Your task to perform on an android device: Searchfor good French restaurants Image 0: 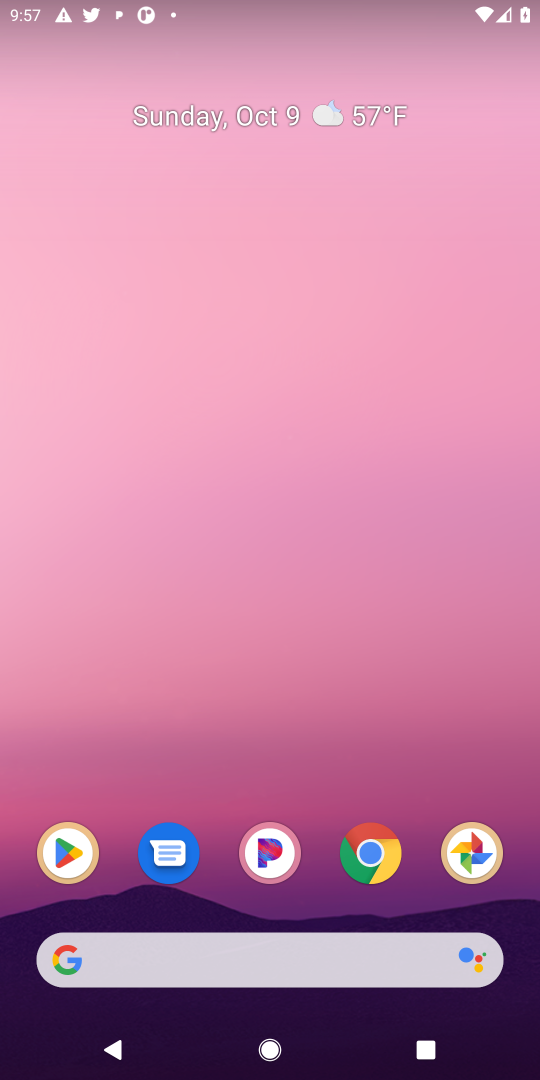
Step 0: click (374, 864)
Your task to perform on an android device: Searchfor good French restaurants Image 1: 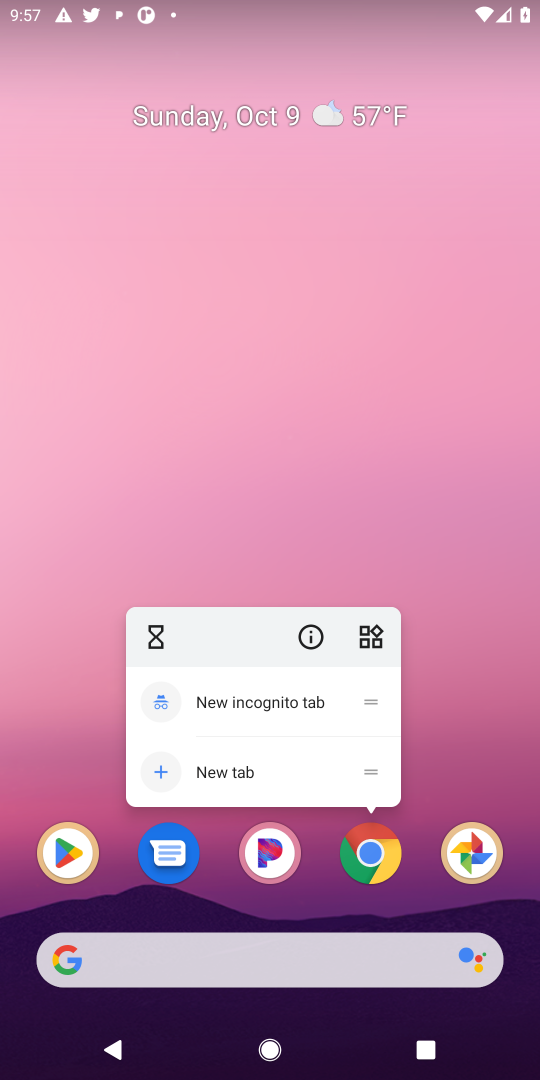
Step 1: click (361, 374)
Your task to perform on an android device: Searchfor good French restaurants Image 2: 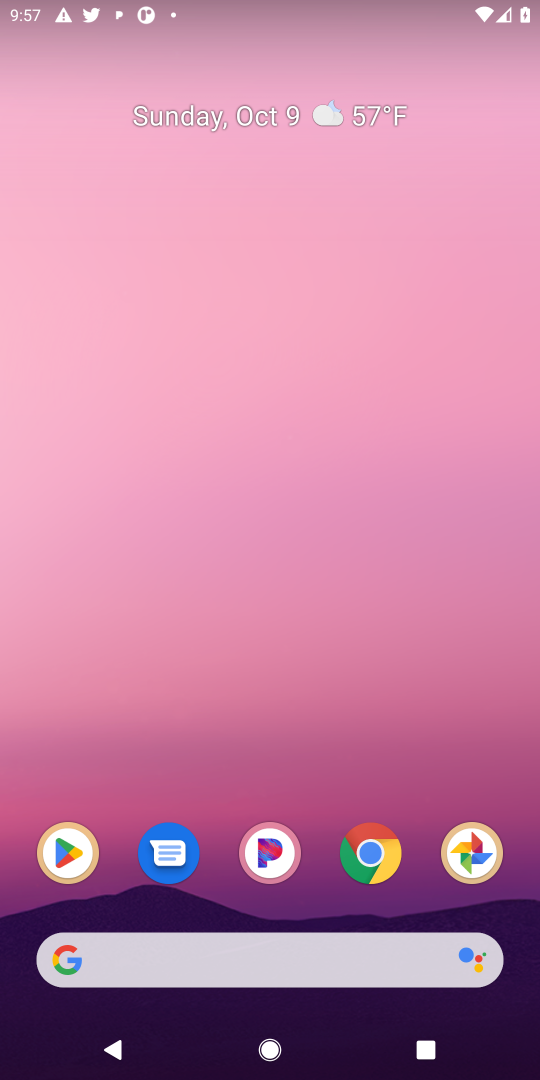
Step 2: click (138, 944)
Your task to perform on an android device: Searchfor good French restaurants Image 3: 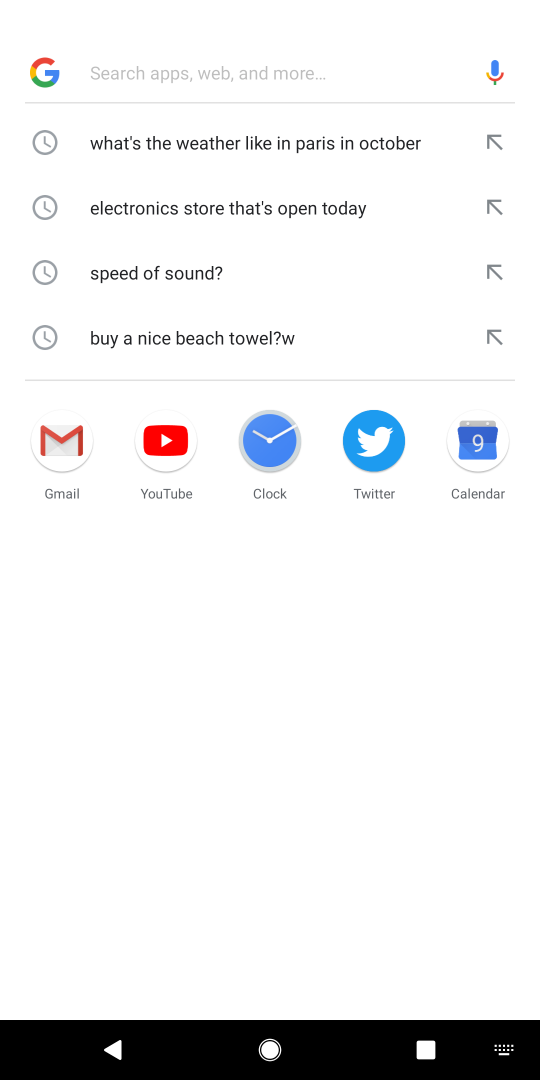
Step 3: type "good french restaurants"
Your task to perform on an android device: Searchfor good French restaurants Image 4: 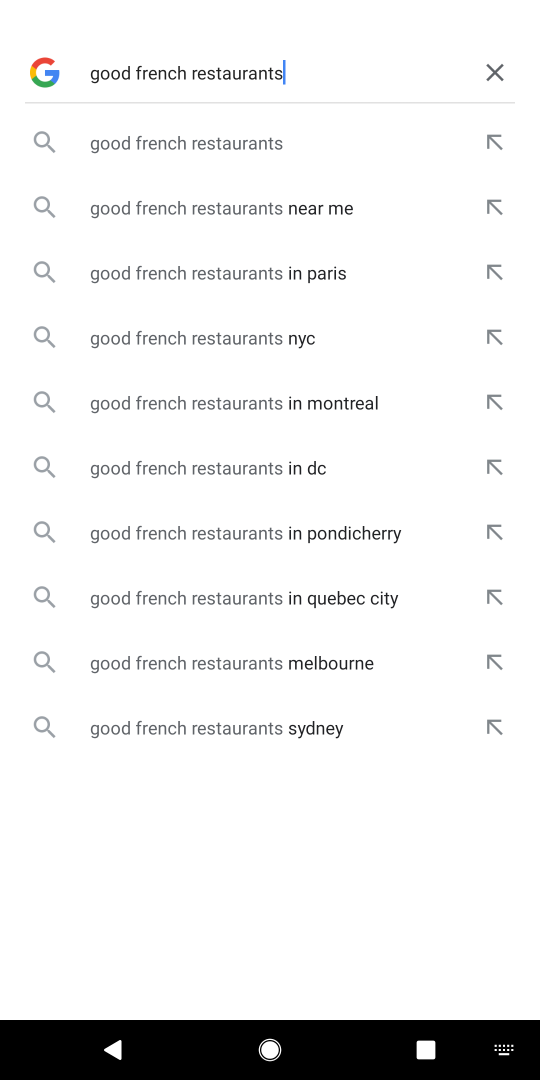
Step 4: press enter
Your task to perform on an android device: Searchfor good French restaurants Image 5: 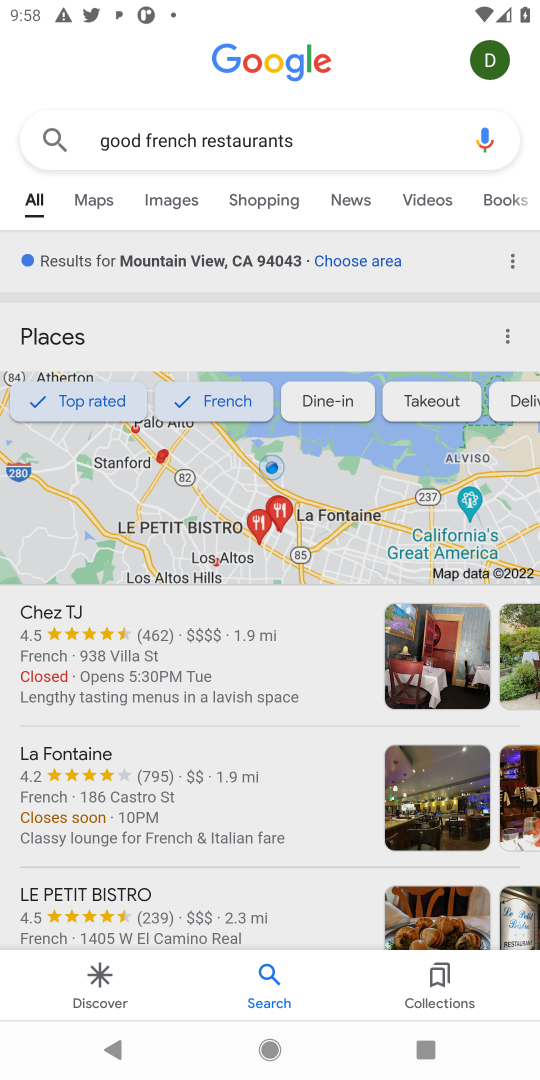
Step 5: click (48, 603)
Your task to perform on an android device: Searchfor good French restaurants Image 6: 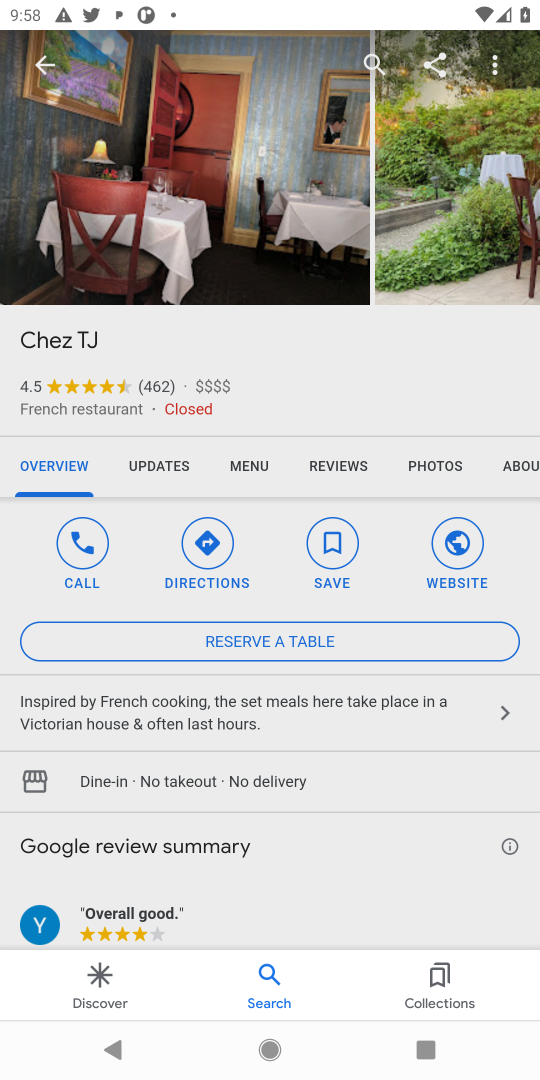
Step 6: drag from (286, 805) to (256, 308)
Your task to perform on an android device: Searchfor good French restaurants Image 7: 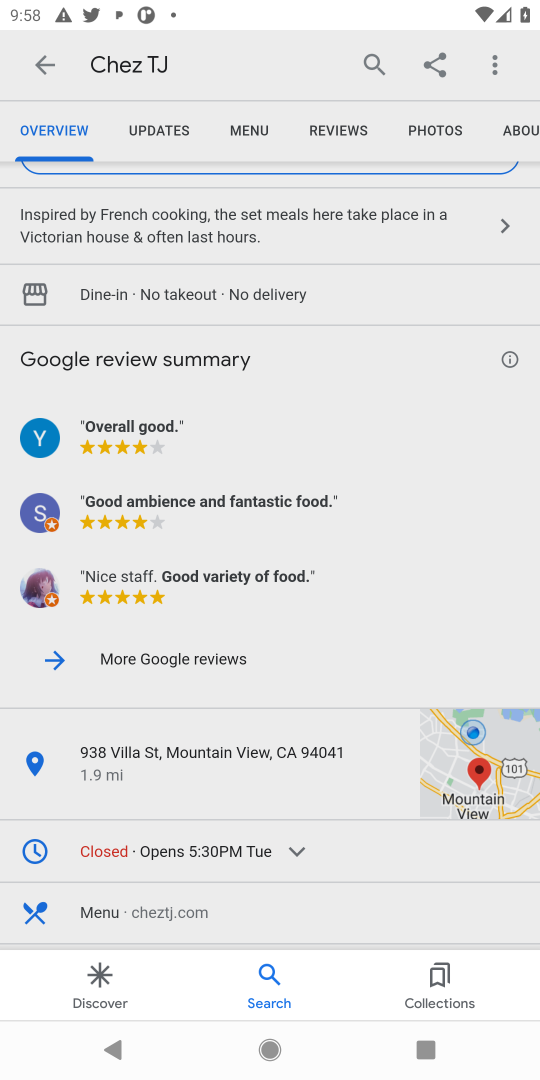
Step 7: drag from (282, 736) to (244, 332)
Your task to perform on an android device: Searchfor good French restaurants Image 8: 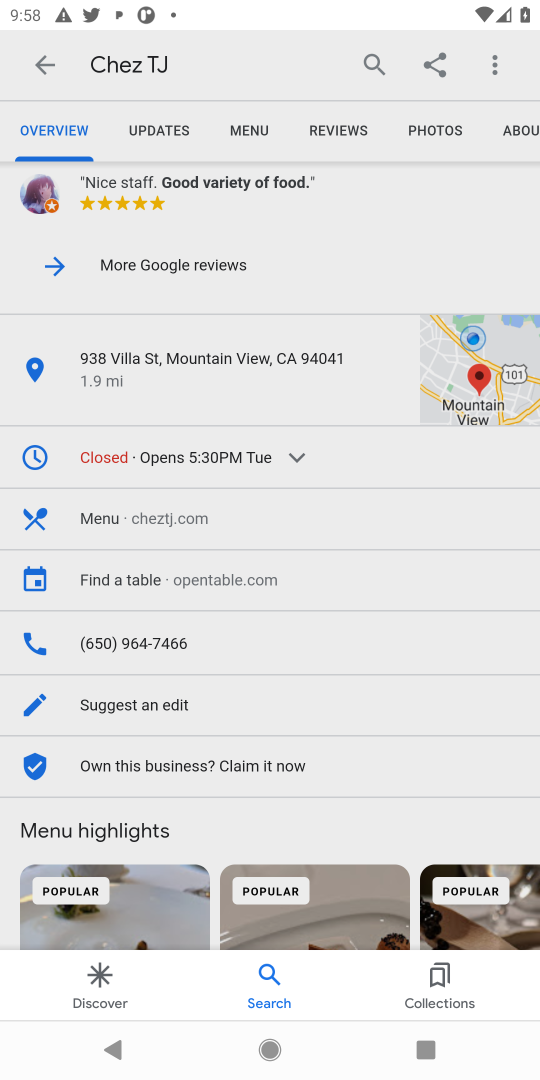
Step 8: drag from (220, 734) to (257, 271)
Your task to perform on an android device: Searchfor good French restaurants Image 9: 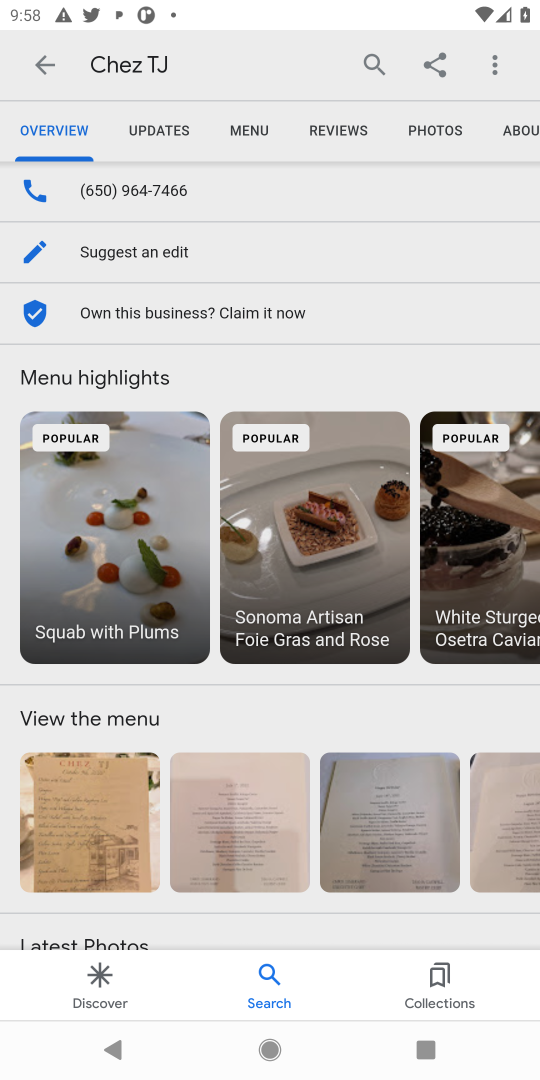
Step 9: drag from (306, 592) to (266, 259)
Your task to perform on an android device: Searchfor good French restaurants Image 10: 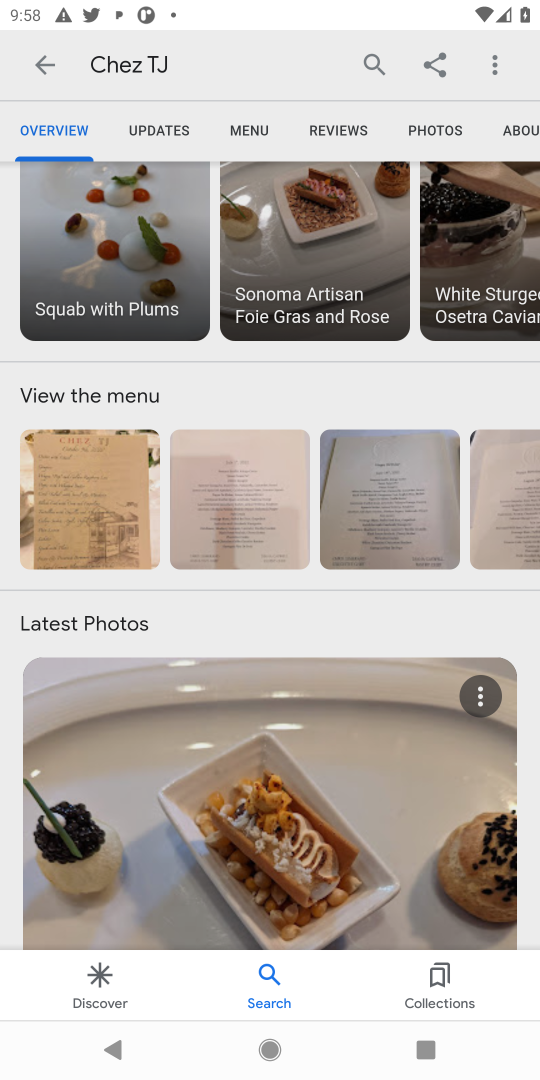
Step 10: drag from (263, 521) to (239, 134)
Your task to perform on an android device: Searchfor good French restaurants Image 11: 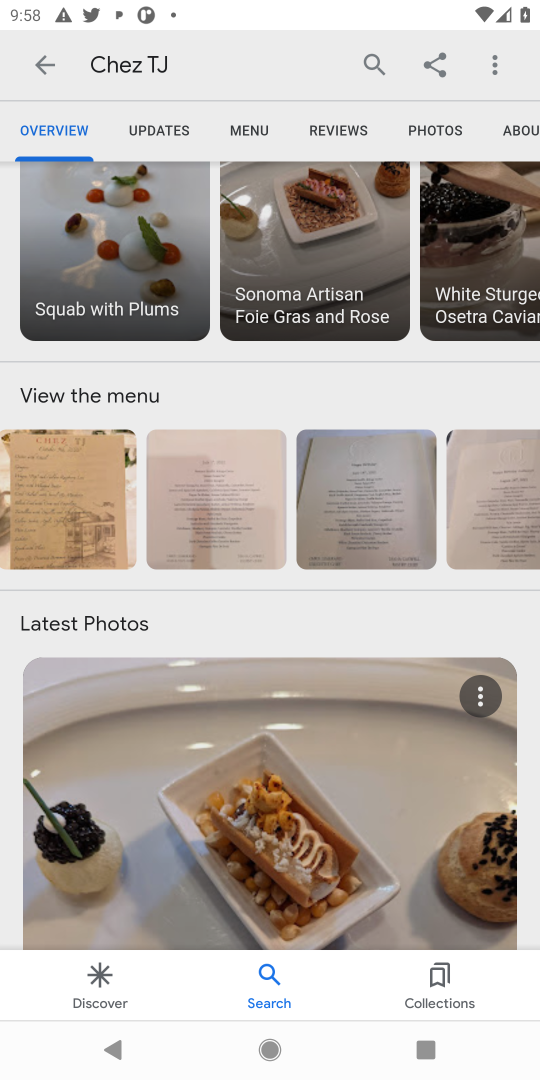
Step 11: drag from (306, 750) to (316, 246)
Your task to perform on an android device: Searchfor good French restaurants Image 12: 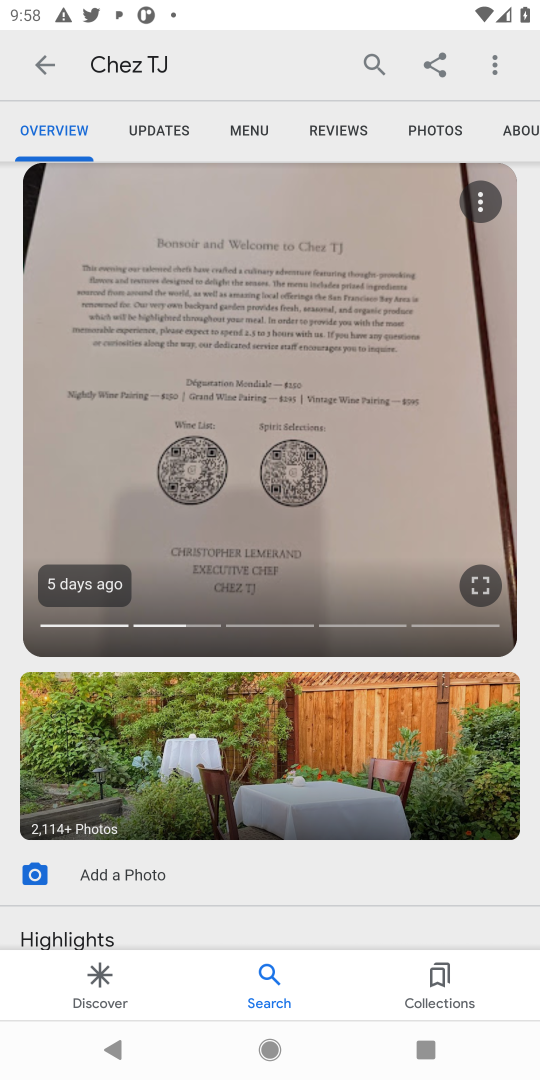
Step 12: drag from (369, 481) to (121, 458)
Your task to perform on an android device: Searchfor good French restaurants Image 13: 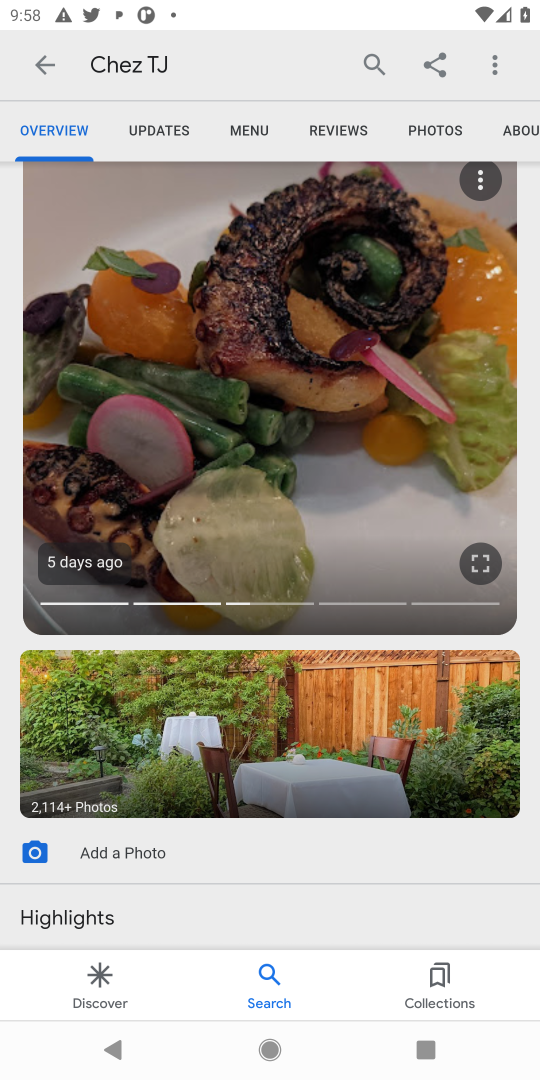
Step 13: drag from (340, 494) to (134, 483)
Your task to perform on an android device: Searchfor good French restaurants Image 14: 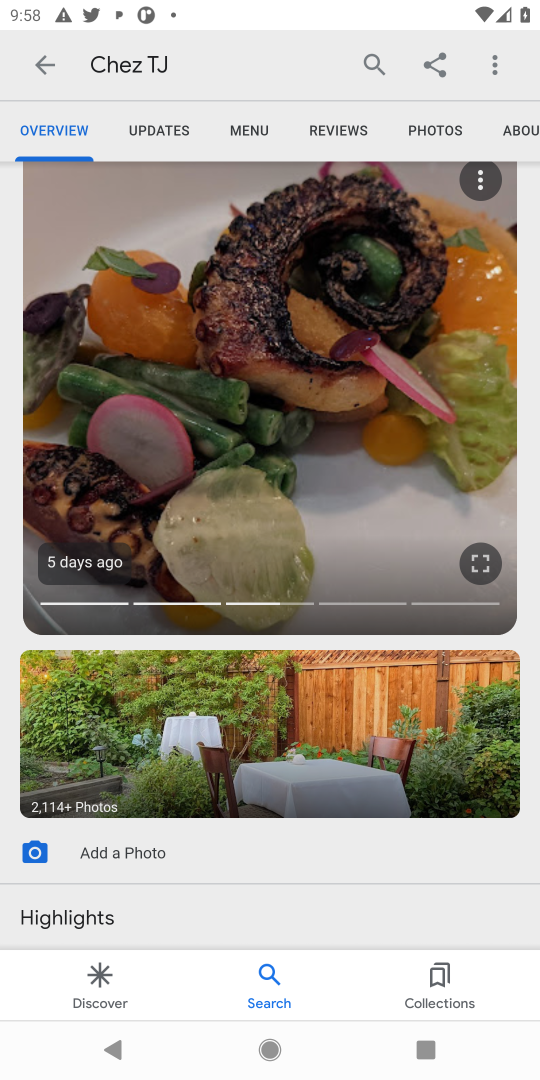
Step 14: drag from (431, 494) to (266, 492)
Your task to perform on an android device: Searchfor good French restaurants Image 15: 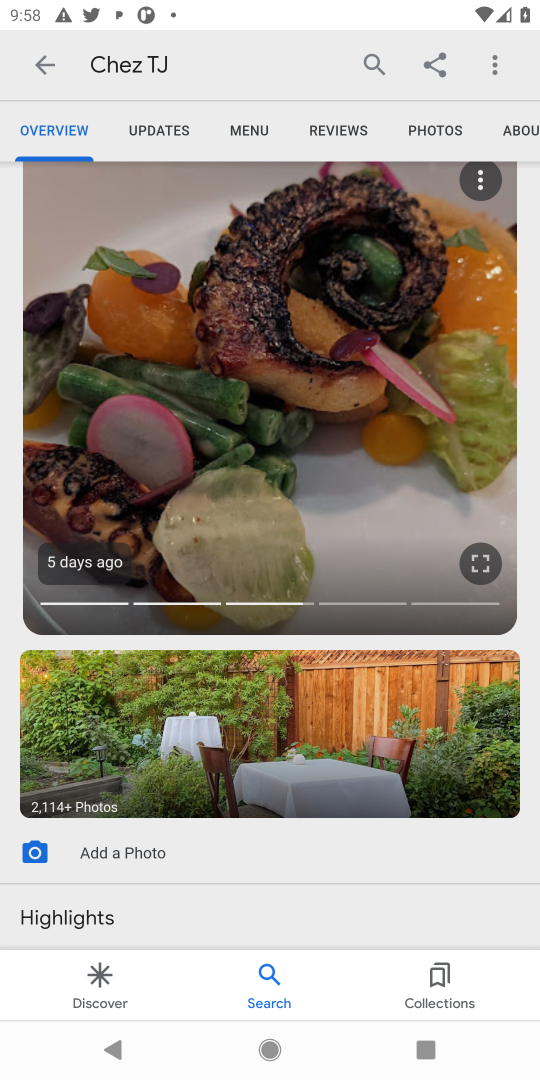
Step 15: drag from (469, 502) to (288, 501)
Your task to perform on an android device: Searchfor good French restaurants Image 16: 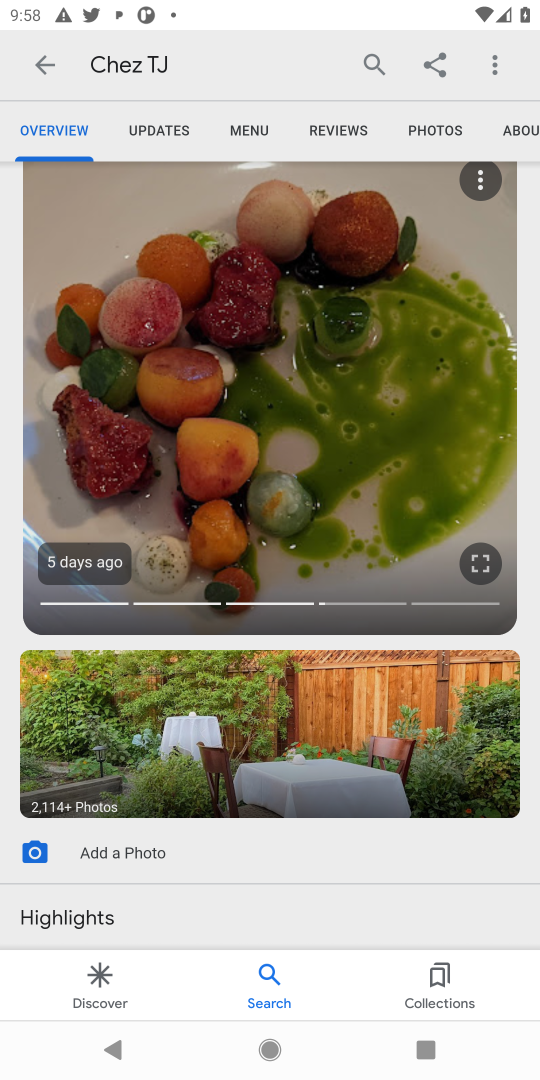
Step 16: drag from (430, 469) to (283, 480)
Your task to perform on an android device: Searchfor good French restaurants Image 17: 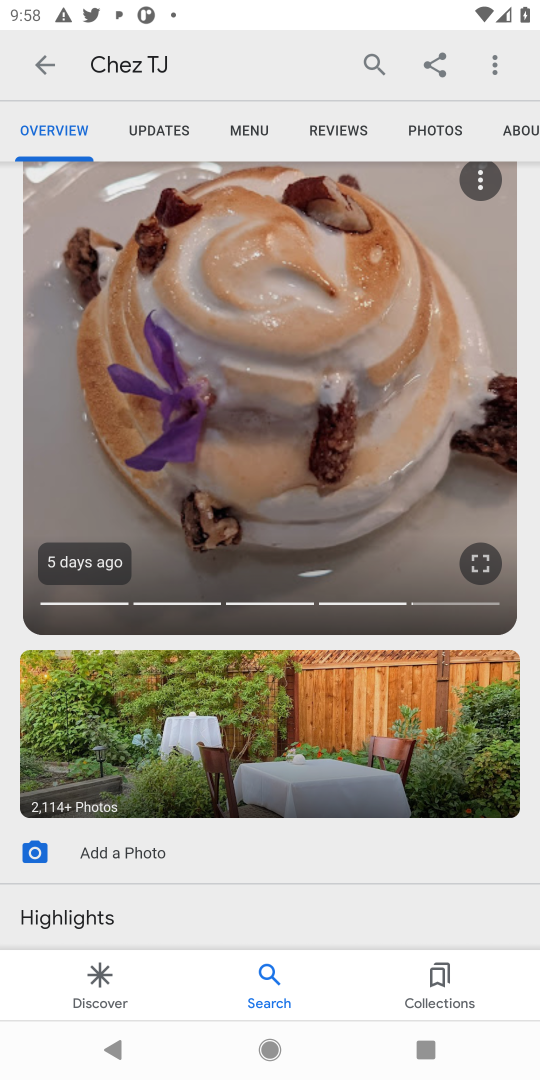
Step 17: drag from (394, 559) to (350, 282)
Your task to perform on an android device: Searchfor good French restaurants Image 18: 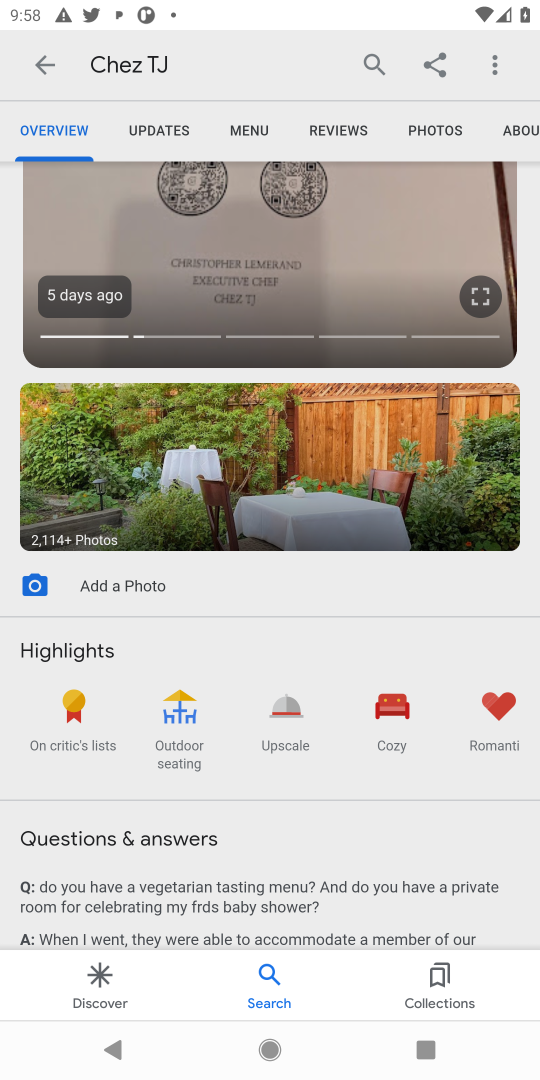
Step 18: drag from (340, 600) to (288, 250)
Your task to perform on an android device: Searchfor good French restaurants Image 19: 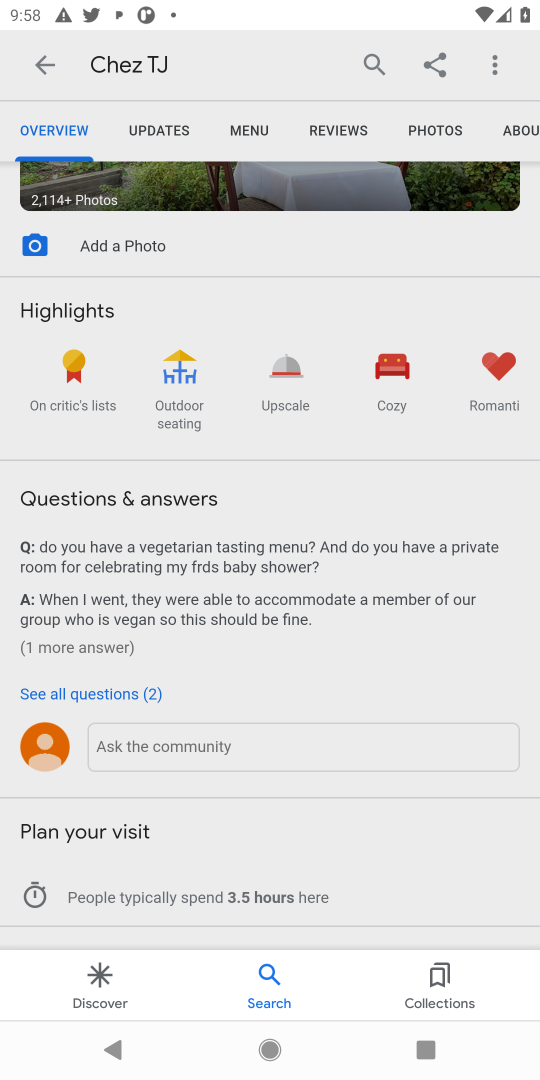
Step 19: drag from (249, 735) to (326, 325)
Your task to perform on an android device: Searchfor good French restaurants Image 20: 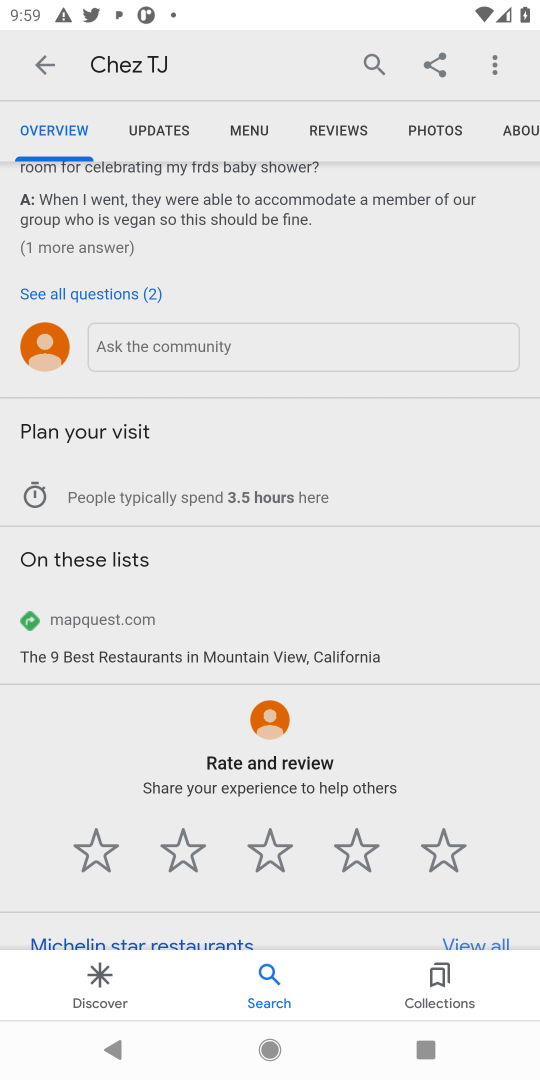
Step 20: drag from (313, 780) to (317, 230)
Your task to perform on an android device: Searchfor good French restaurants Image 21: 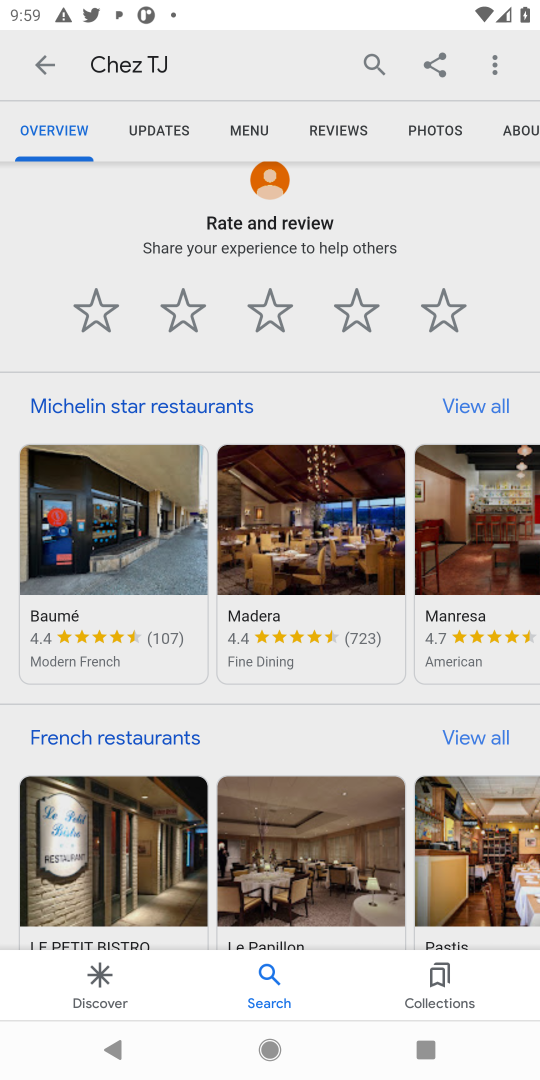
Step 21: press back button
Your task to perform on an android device: Searchfor good French restaurants Image 22: 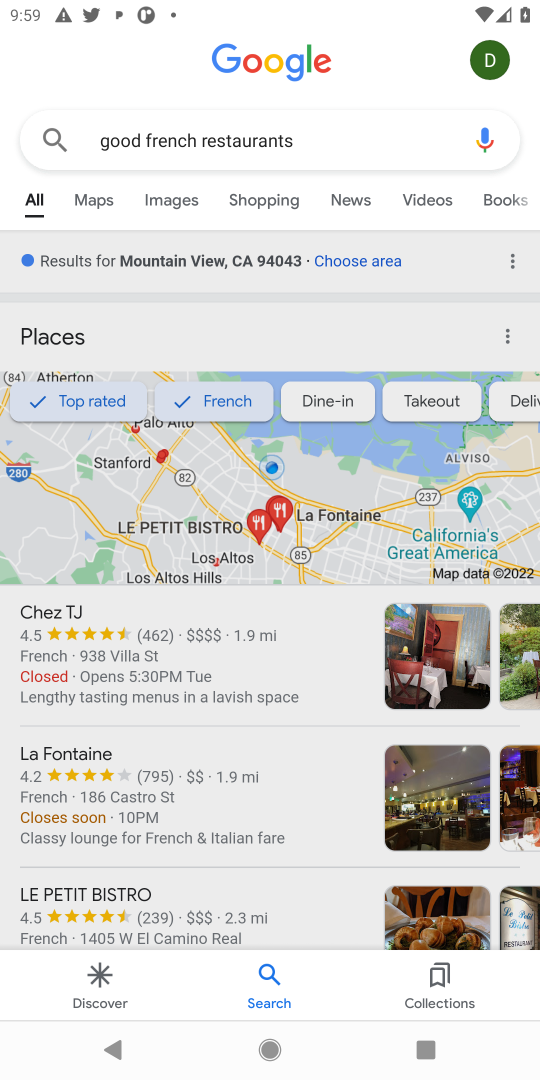
Step 22: drag from (116, 851) to (142, 536)
Your task to perform on an android device: Searchfor good French restaurants Image 23: 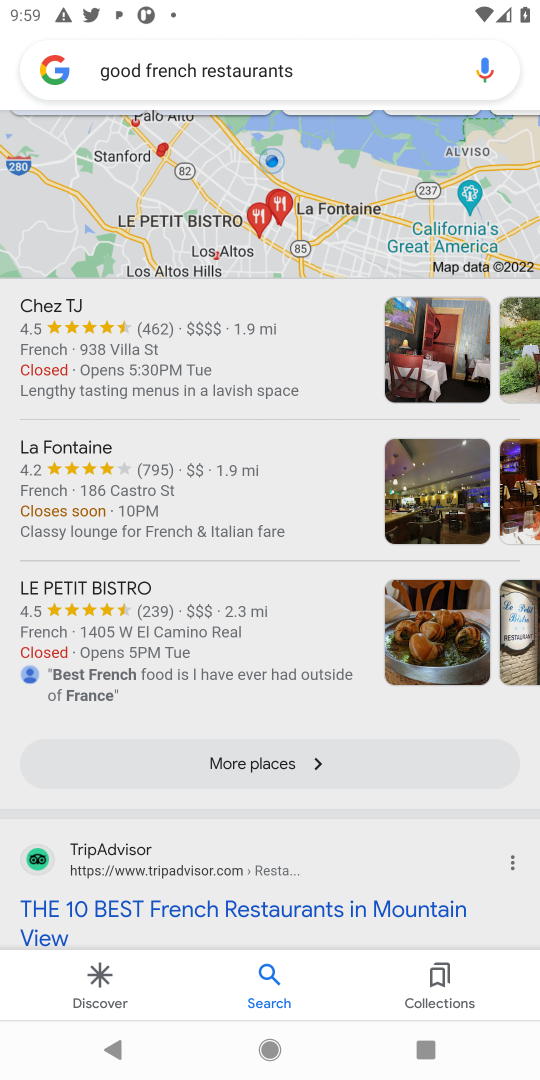
Step 23: click (75, 586)
Your task to perform on an android device: Searchfor good French restaurants Image 24: 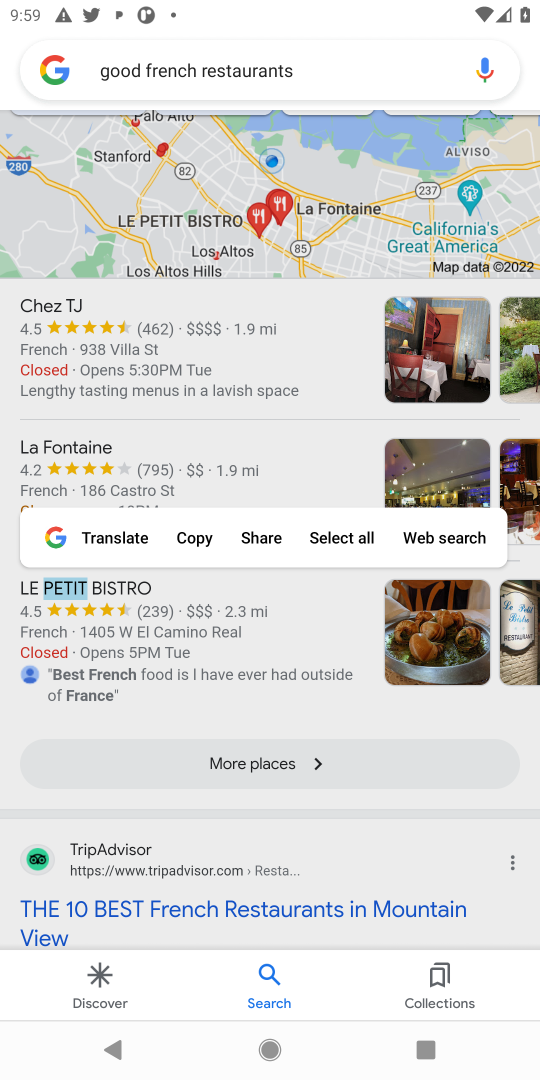
Step 24: click (128, 776)
Your task to perform on an android device: Searchfor good French restaurants Image 25: 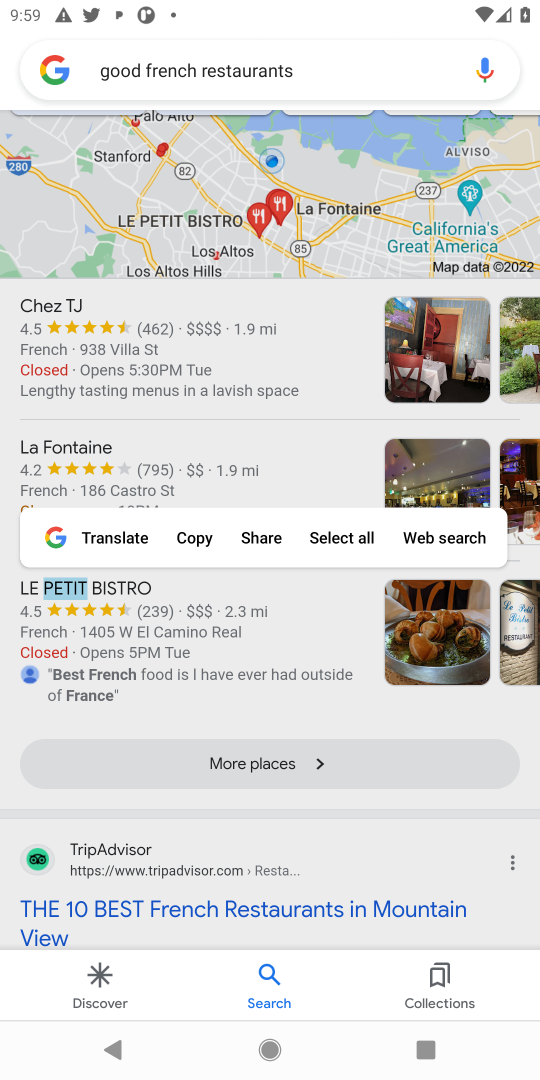
Step 25: click (163, 784)
Your task to perform on an android device: Searchfor good French restaurants Image 26: 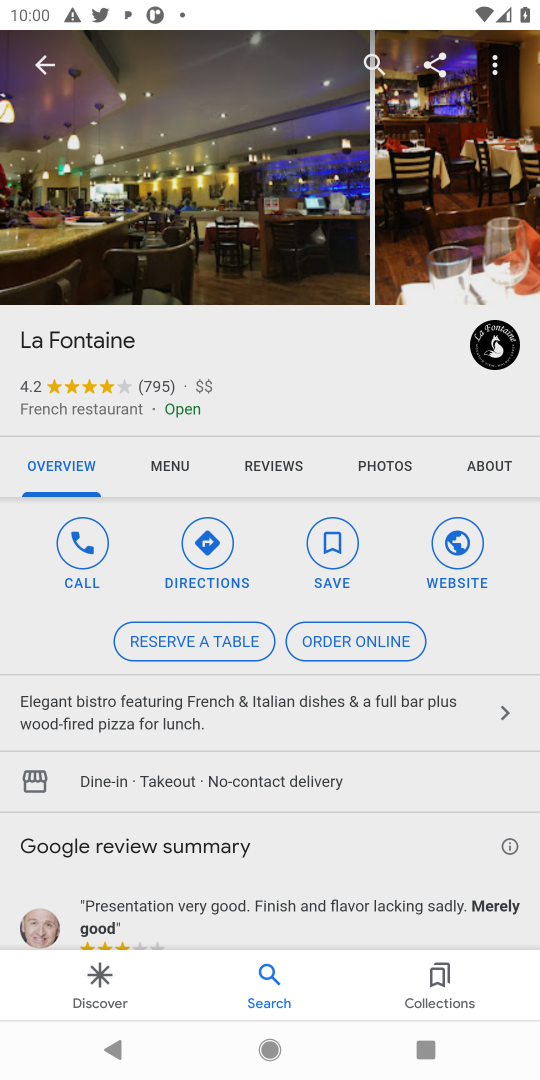
Step 26: task complete